Your task to perform on an android device: turn on notifications settings in the gmail app Image 0: 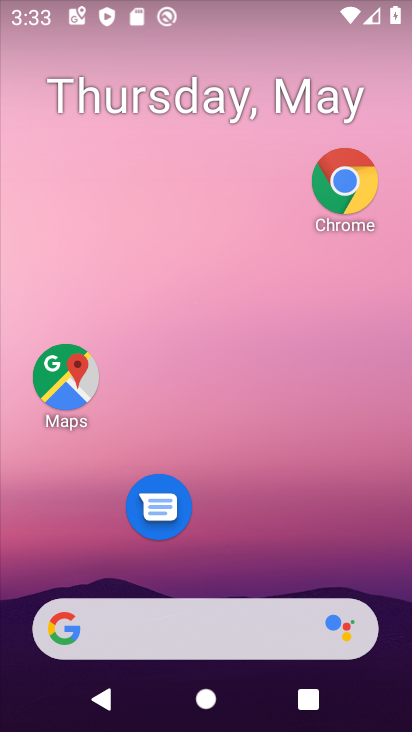
Step 0: drag from (243, 511) to (273, 85)
Your task to perform on an android device: turn on notifications settings in the gmail app Image 1: 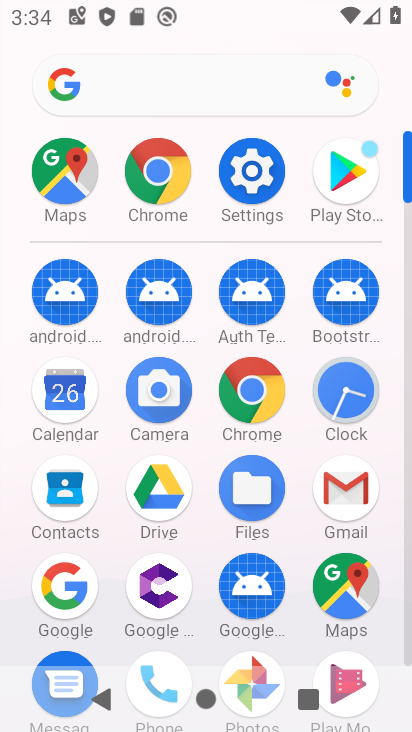
Step 1: click (328, 489)
Your task to perform on an android device: turn on notifications settings in the gmail app Image 2: 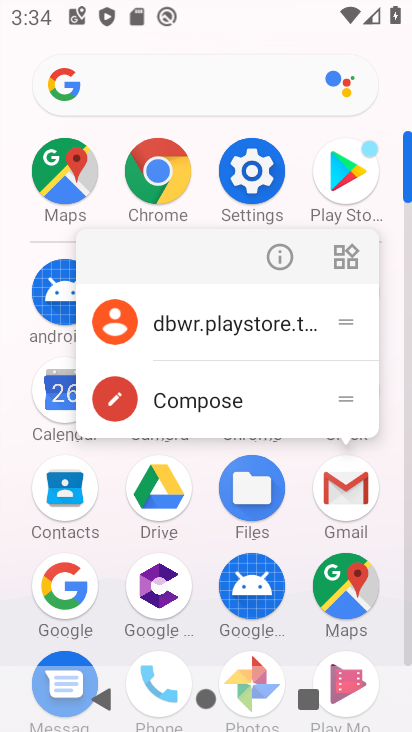
Step 2: click (278, 254)
Your task to perform on an android device: turn on notifications settings in the gmail app Image 3: 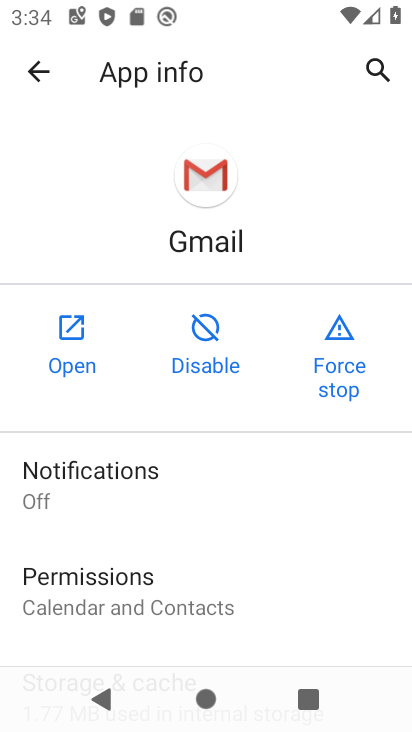
Step 3: click (178, 473)
Your task to perform on an android device: turn on notifications settings in the gmail app Image 4: 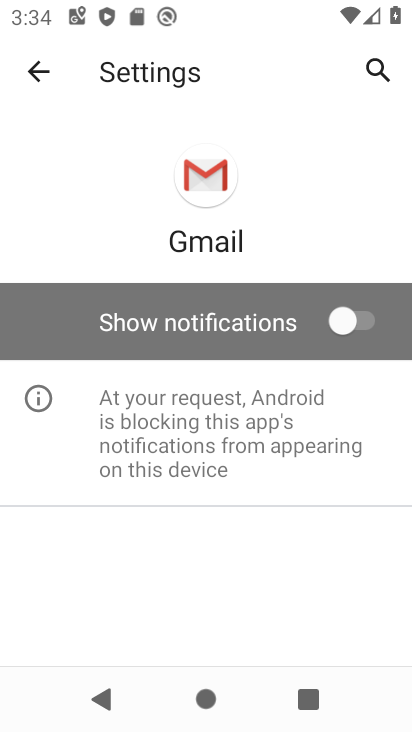
Step 4: click (349, 315)
Your task to perform on an android device: turn on notifications settings in the gmail app Image 5: 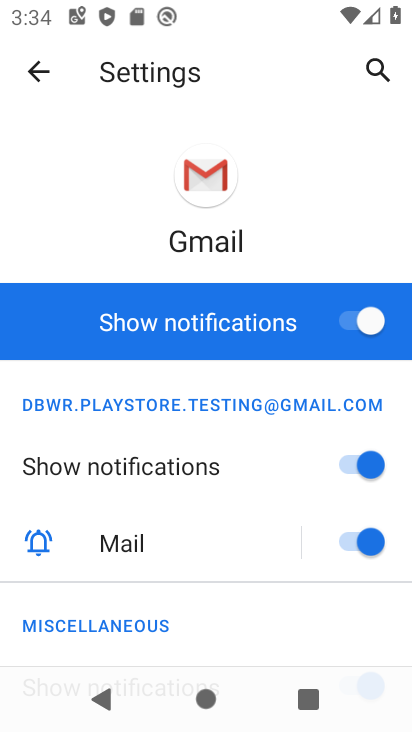
Step 5: task complete